Your task to perform on an android device: Open calendar and show me the first week of next month Image 0: 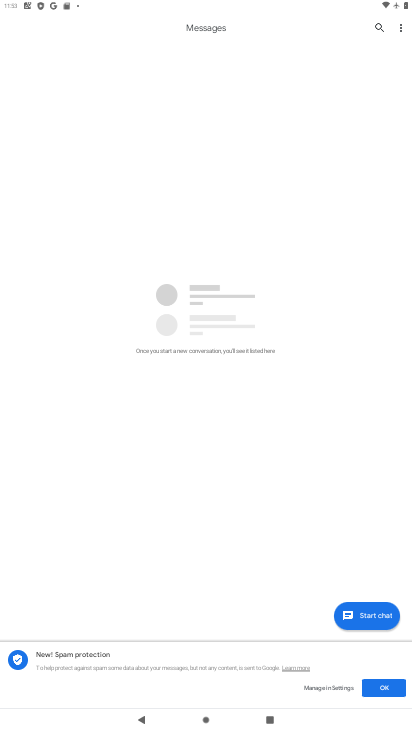
Step 0: press home button
Your task to perform on an android device: Open calendar and show me the first week of next month Image 1: 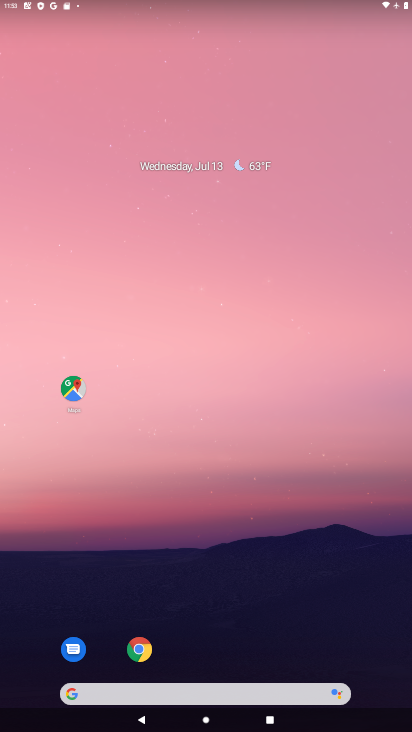
Step 1: drag from (261, 605) to (265, 176)
Your task to perform on an android device: Open calendar and show me the first week of next month Image 2: 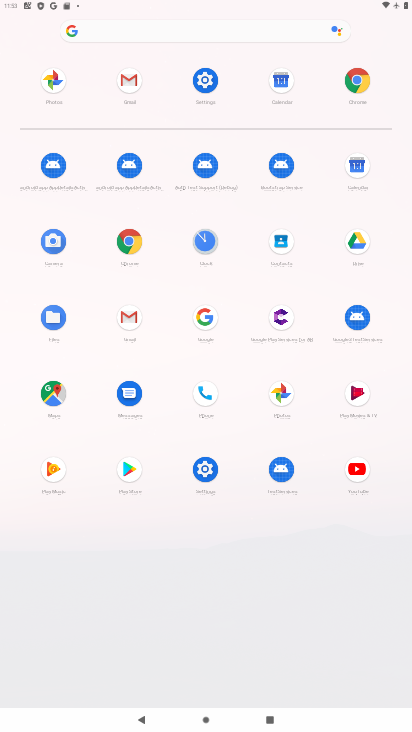
Step 2: click (353, 150)
Your task to perform on an android device: Open calendar and show me the first week of next month Image 3: 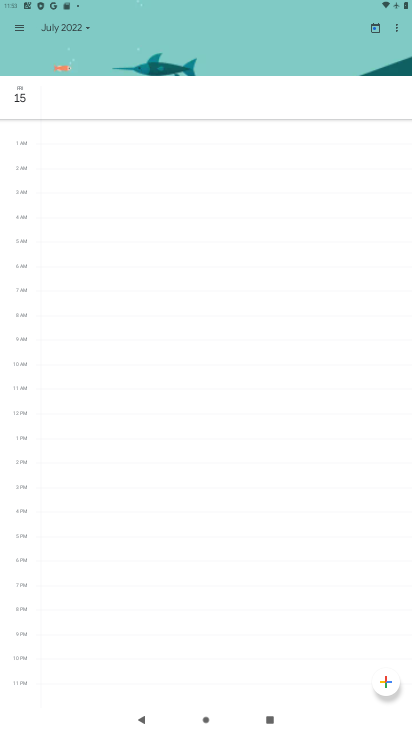
Step 3: click (4, 22)
Your task to perform on an android device: Open calendar and show me the first week of next month Image 4: 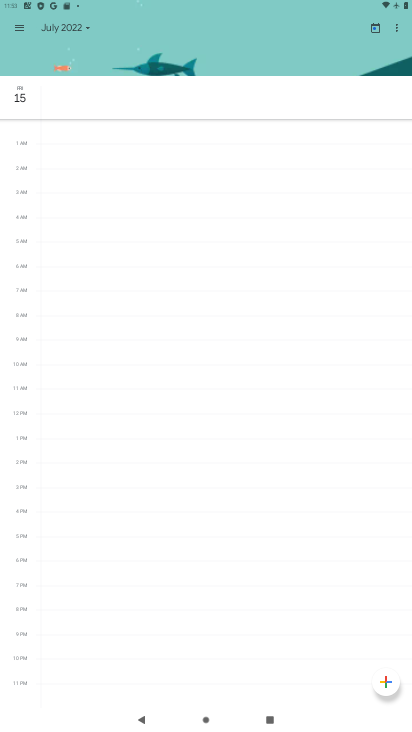
Step 4: click (20, 19)
Your task to perform on an android device: Open calendar and show me the first week of next month Image 5: 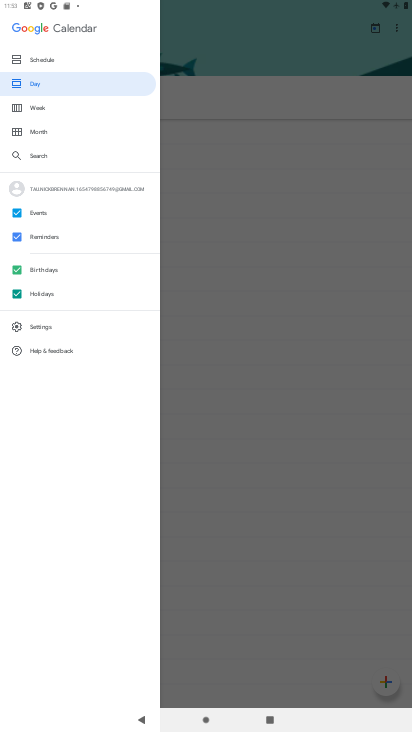
Step 5: click (43, 137)
Your task to perform on an android device: Open calendar and show me the first week of next month Image 6: 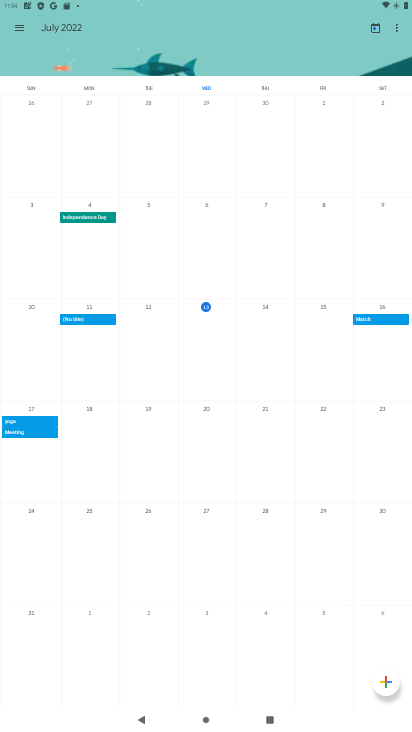
Step 6: task complete